Your task to perform on an android device: empty trash in the gmail app Image 0: 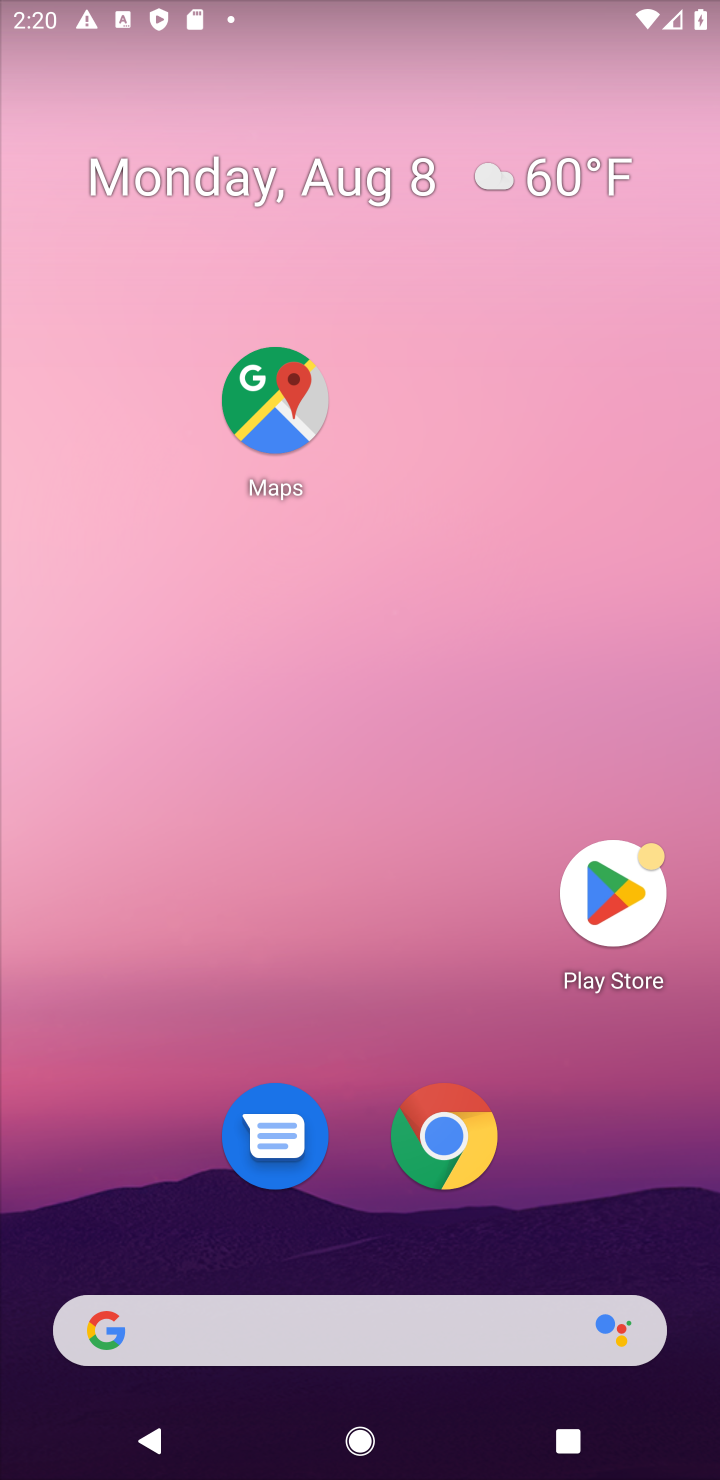
Step 0: click (349, 288)
Your task to perform on an android device: empty trash in the gmail app Image 1: 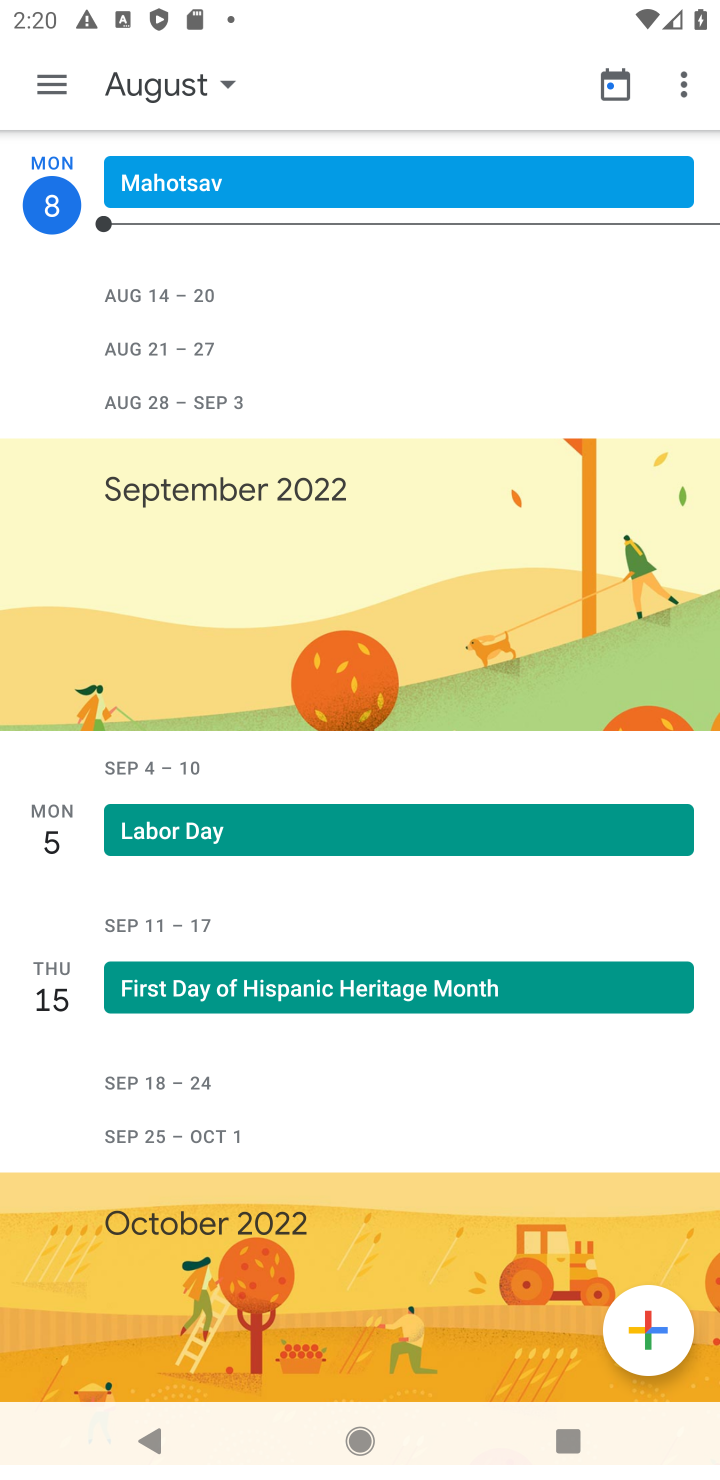
Step 1: click (224, 67)
Your task to perform on an android device: empty trash in the gmail app Image 2: 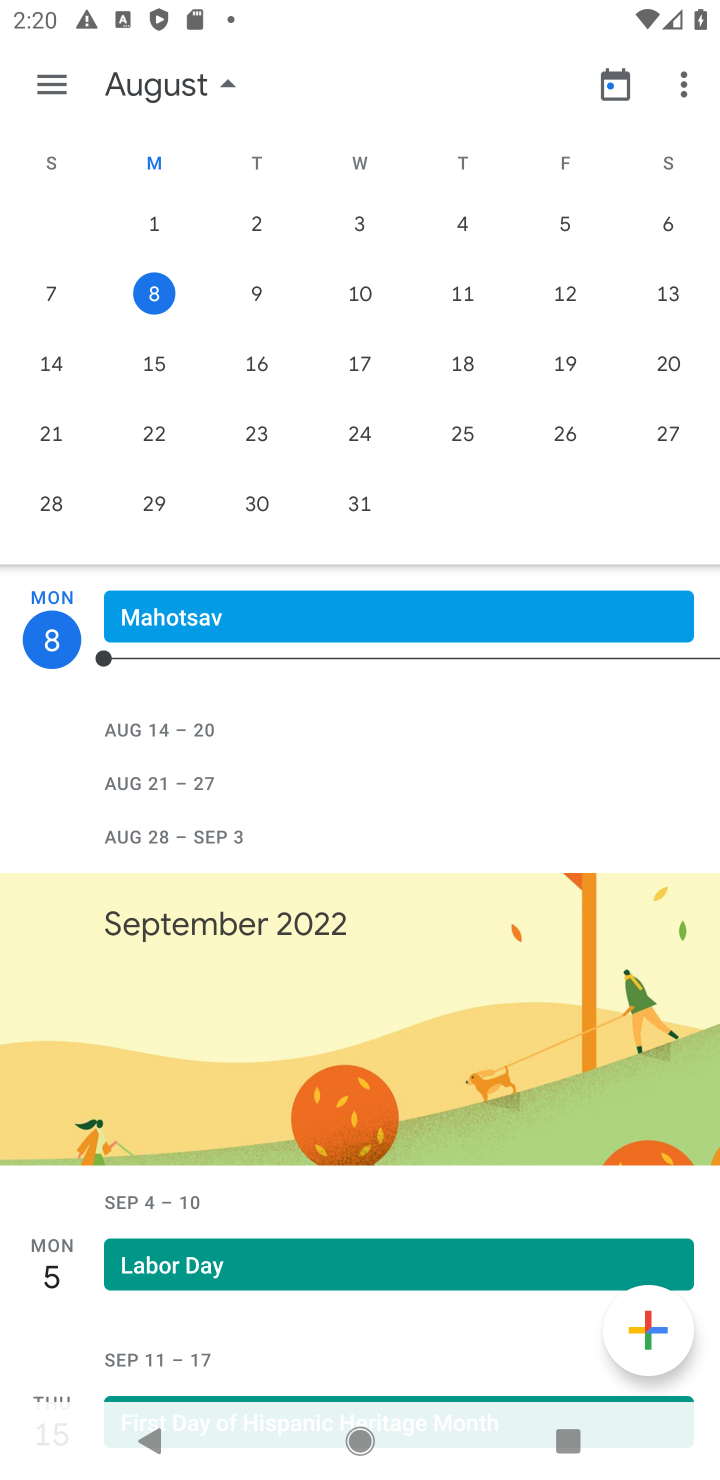
Step 2: task complete